Your task to perform on an android device: move an email to a new category in the gmail app Image 0: 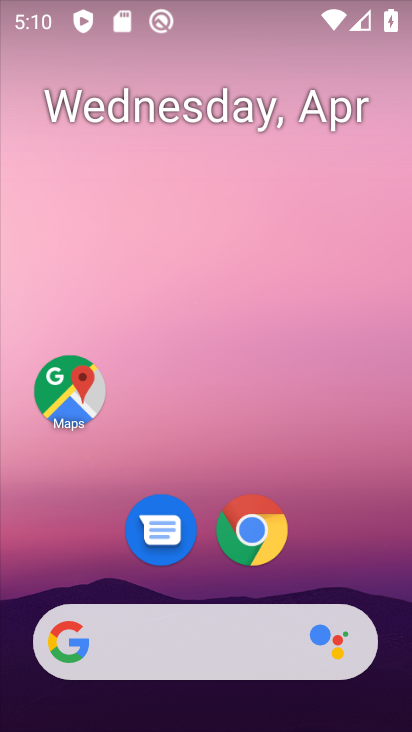
Step 0: drag from (328, 570) to (276, 50)
Your task to perform on an android device: move an email to a new category in the gmail app Image 1: 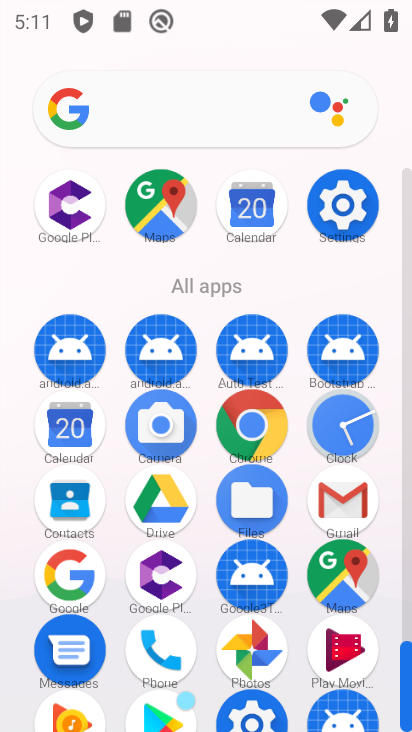
Step 1: click (339, 499)
Your task to perform on an android device: move an email to a new category in the gmail app Image 2: 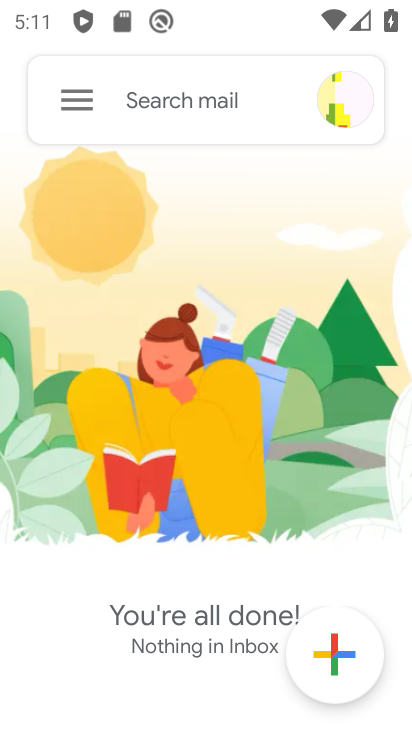
Step 2: click (60, 98)
Your task to perform on an android device: move an email to a new category in the gmail app Image 3: 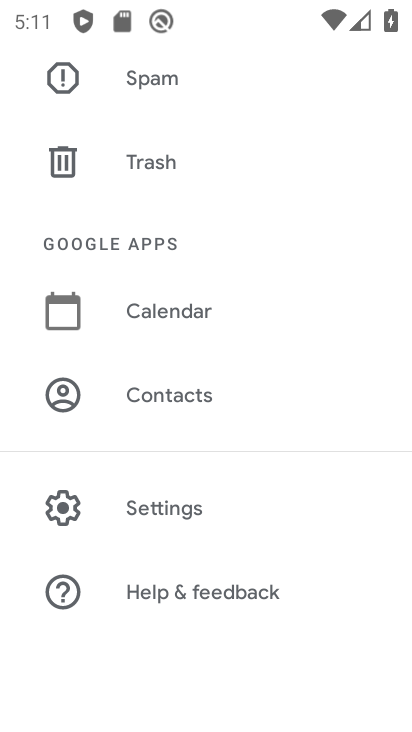
Step 3: drag from (285, 254) to (271, 435)
Your task to perform on an android device: move an email to a new category in the gmail app Image 4: 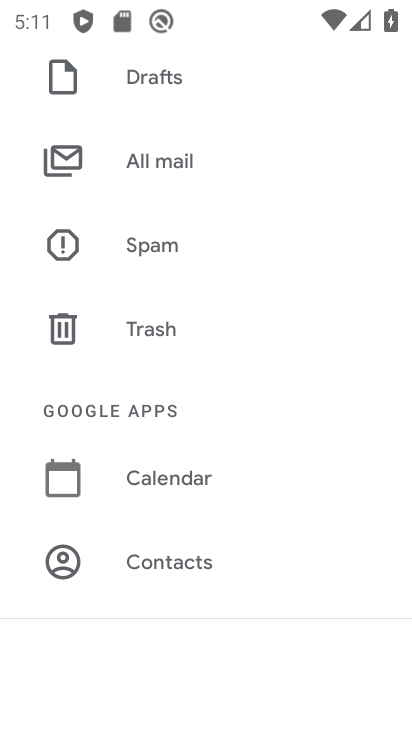
Step 4: click (228, 395)
Your task to perform on an android device: move an email to a new category in the gmail app Image 5: 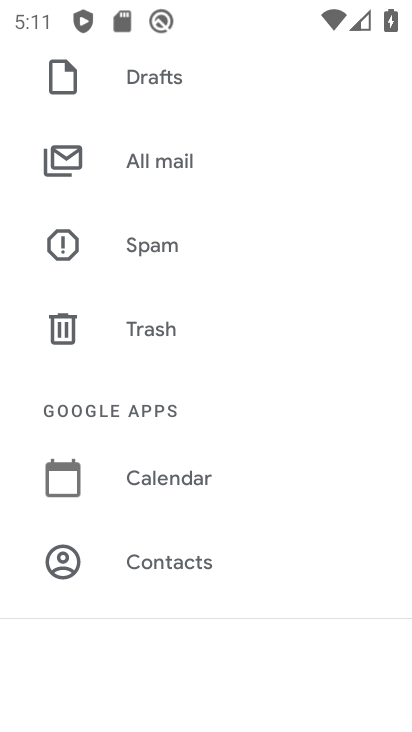
Step 5: click (196, 154)
Your task to perform on an android device: move an email to a new category in the gmail app Image 6: 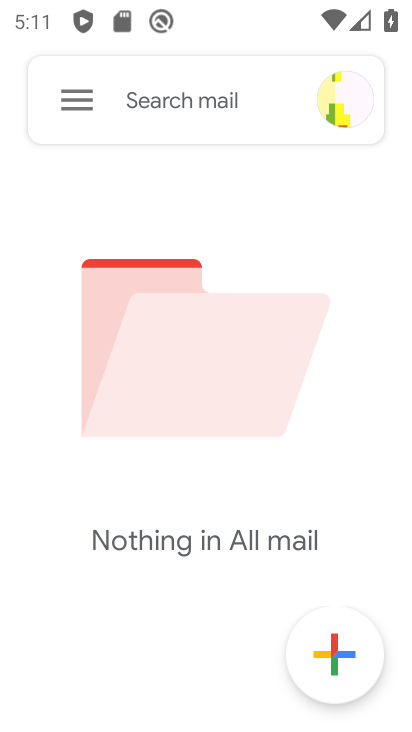
Step 6: task complete